Your task to perform on an android device: turn off priority inbox in the gmail app Image 0: 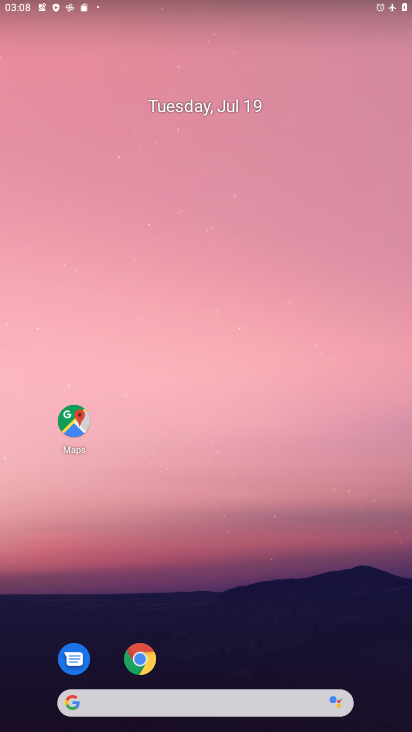
Step 0: press home button
Your task to perform on an android device: turn off priority inbox in the gmail app Image 1: 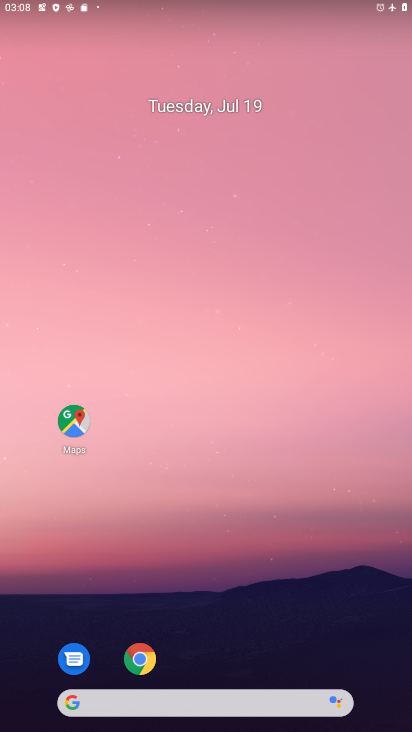
Step 1: drag from (312, 652) to (211, 28)
Your task to perform on an android device: turn off priority inbox in the gmail app Image 2: 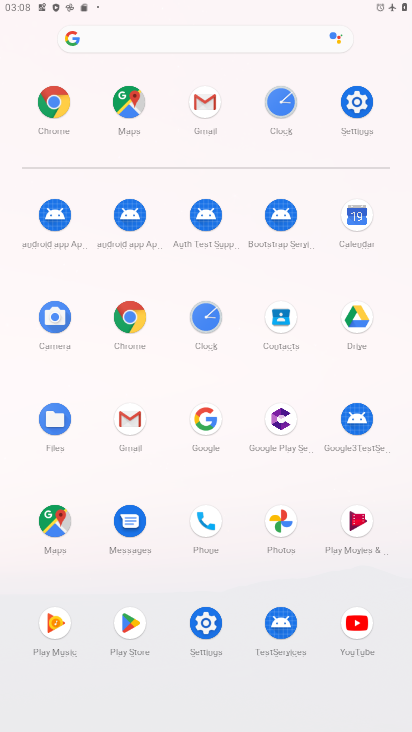
Step 2: click (118, 420)
Your task to perform on an android device: turn off priority inbox in the gmail app Image 3: 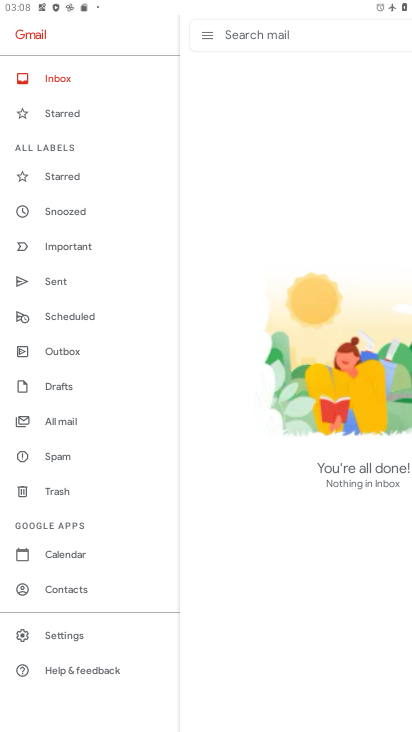
Step 3: click (50, 624)
Your task to perform on an android device: turn off priority inbox in the gmail app Image 4: 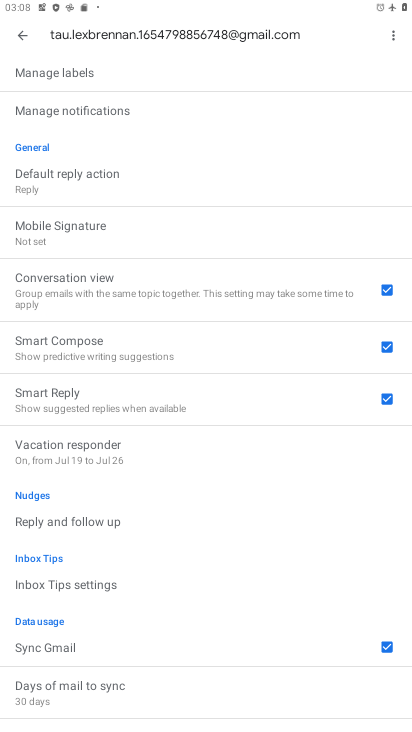
Step 4: drag from (66, 98) to (15, 726)
Your task to perform on an android device: turn off priority inbox in the gmail app Image 5: 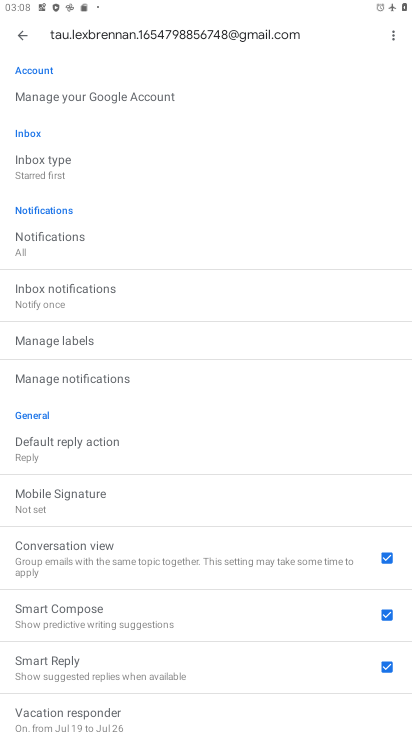
Step 5: click (67, 171)
Your task to perform on an android device: turn off priority inbox in the gmail app Image 6: 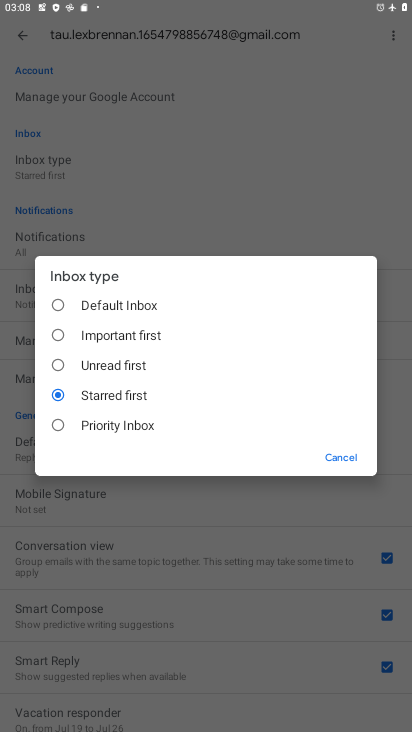
Step 6: click (104, 311)
Your task to perform on an android device: turn off priority inbox in the gmail app Image 7: 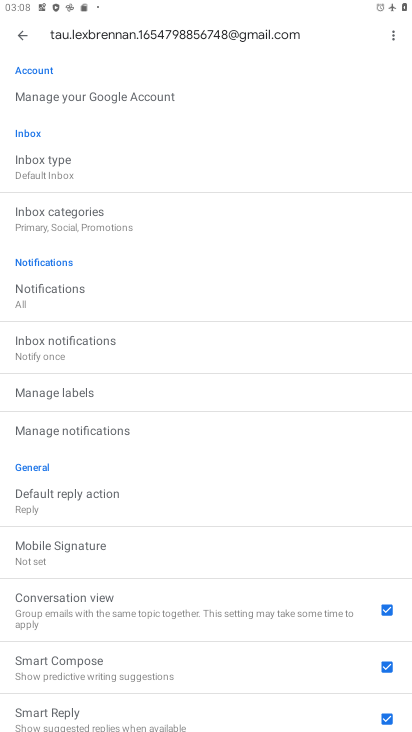
Step 7: task complete